Your task to perform on an android device: turn off sleep mode Image 0: 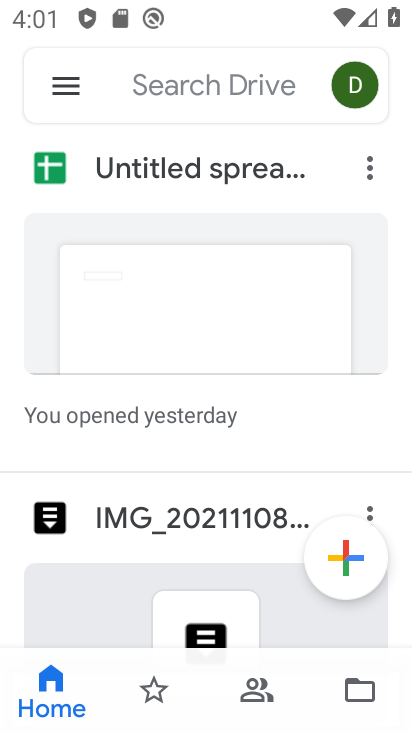
Step 0: press home button
Your task to perform on an android device: turn off sleep mode Image 1: 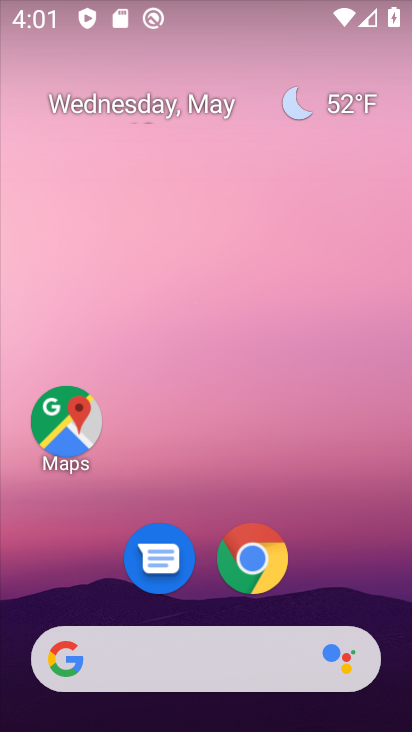
Step 1: drag from (342, 630) to (389, 216)
Your task to perform on an android device: turn off sleep mode Image 2: 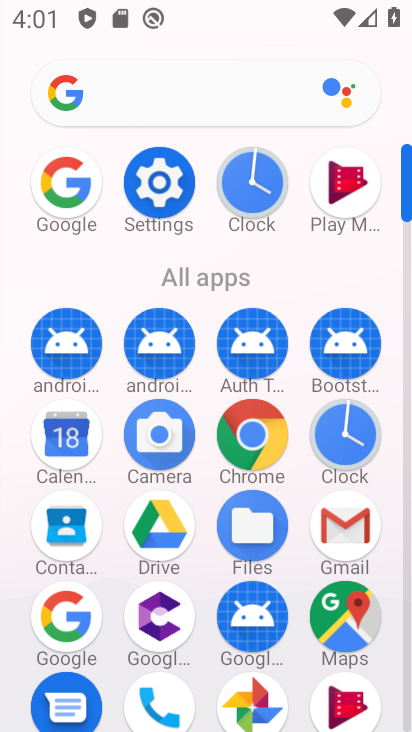
Step 2: click (142, 193)
Your task to perform on an android device: turn off sleep mode Image 3: 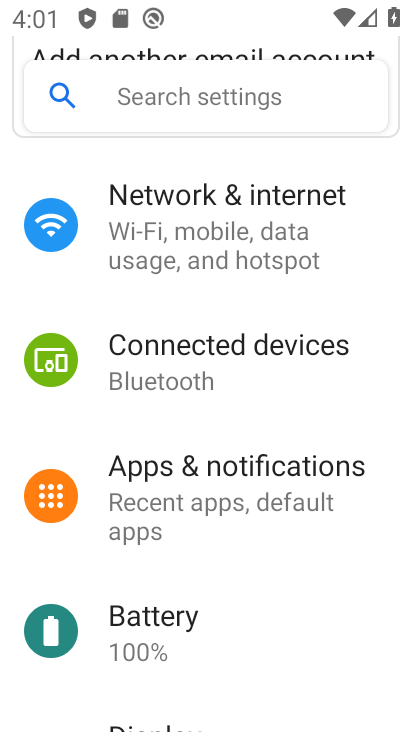
Step 3: drag from (229, 586) to (277, 262)
Your task to perform on an android device: turn off sleep mode Image 4: 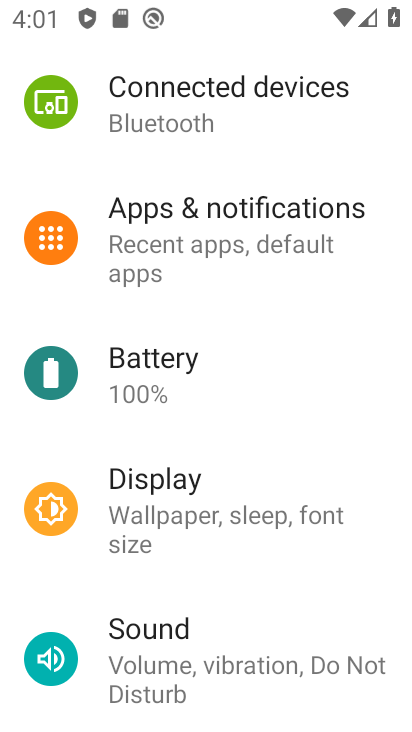
Step 4: click (227, 488)
Your task to perform on an android device: turn off sleep mode Image 5: 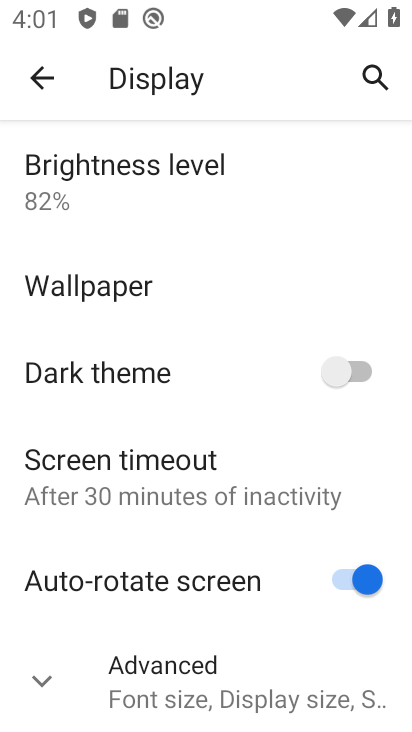
Step 5: drag from (138, 628) to (170, 410)
Your task to perform on an android device: turn off sleep mode Image 6: 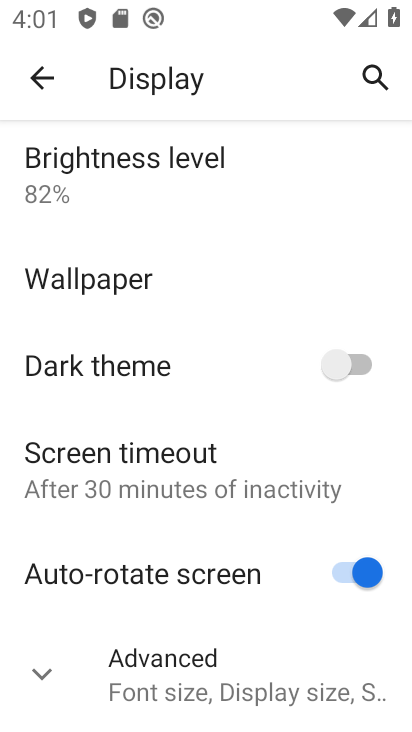
Step 6: click (47, 675)
Your task to perform on an android device: turn off sleep mode Image 7: 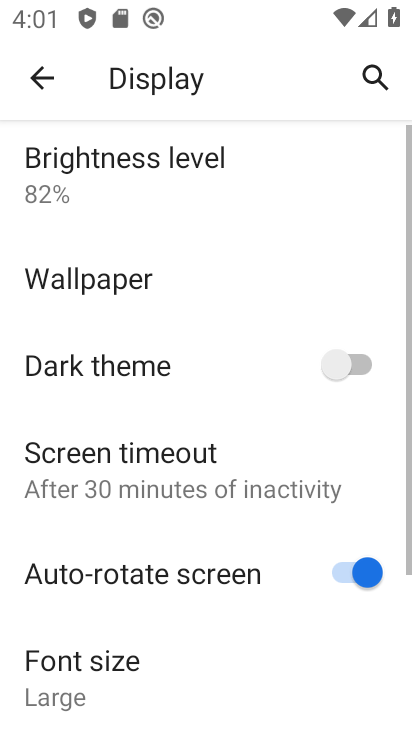
Step 7: task complete